Your task to perform on an android device: Open sound settings Image 0: 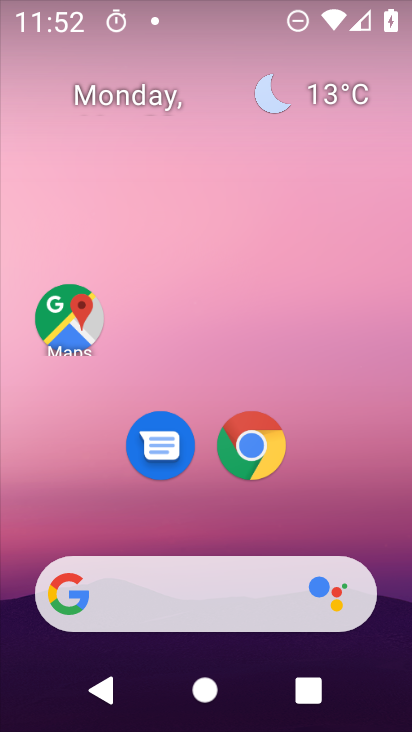
Step 0: drag from (159, 558) to (194, 28)
Your task to perform on an android device: Open sound settings Image 1: 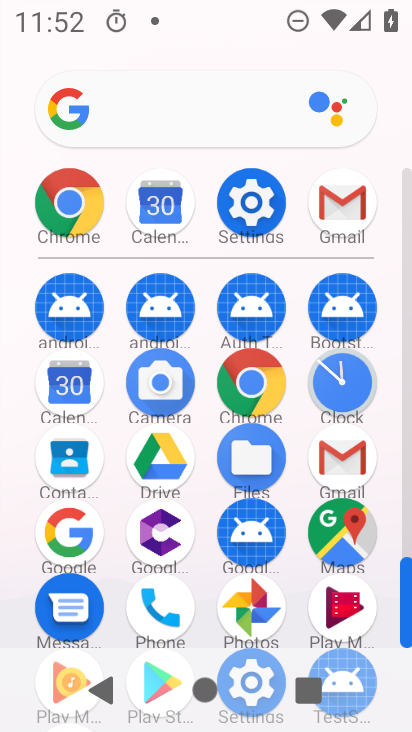
Step 1: click (250, 194)
Your task to perform on an android device: Open sound settings Image 2: 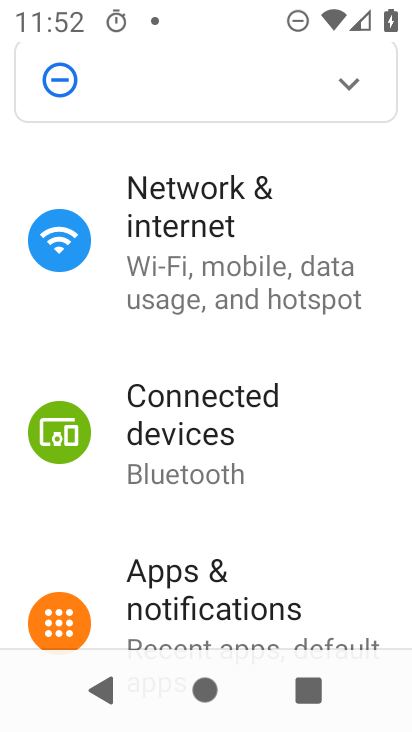
Step 2: drag from (180, 577) to (234, 58)
Your task to perform on an android device: Open sound settings Image 3: 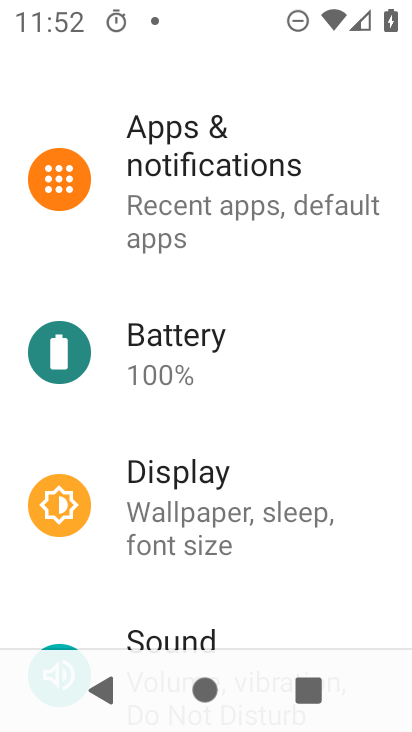
Step 3: click (194, 633)
Your task to perform on an android device: Open sound settings Image 4: 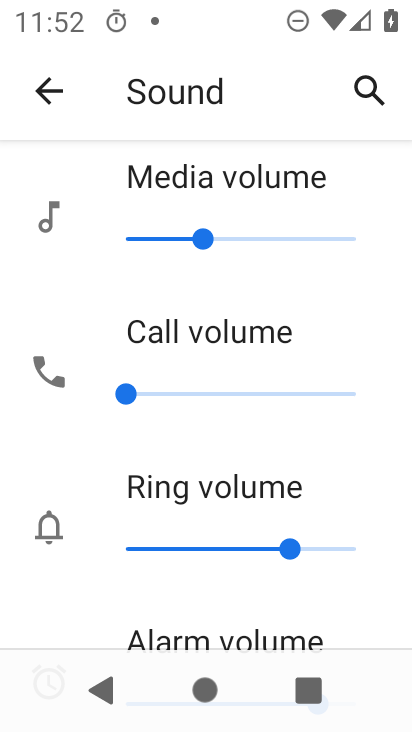
Step 4: task complete